Your task to perform on an android device: Do I have any events this weekend? Image 0: 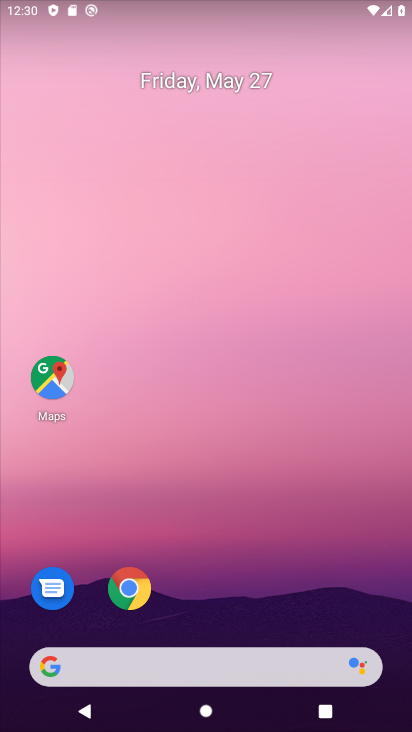
Step 0: press home button
Your task to perform on an android device: Do I have any events this weekend? Image 1: 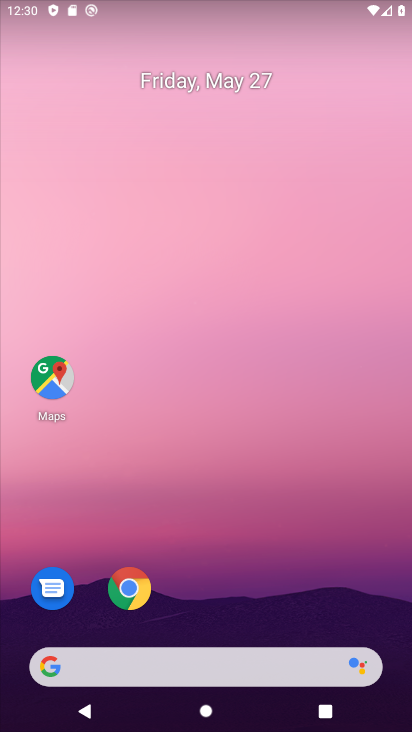
Step 1: drag from (245, 621) to (240, 92)
Your task to perform on an android device: Do I have any events this weekend? Image 2: 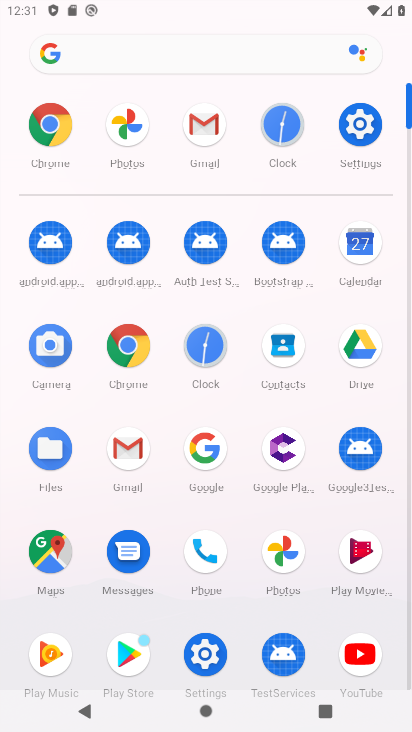
Step 2: click (358, 238)
Your task to perform on an android device: Do I have any events this weekend? Image 3: 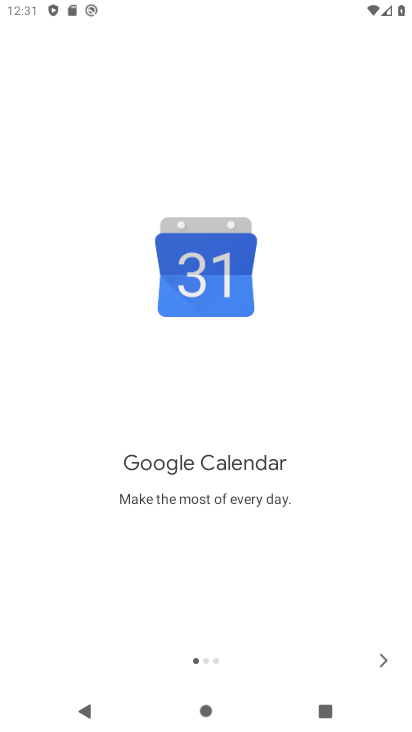
Step 3: click (379, 653)
Your task to perform on an android device: Do I have any events this weekend? Image 4: 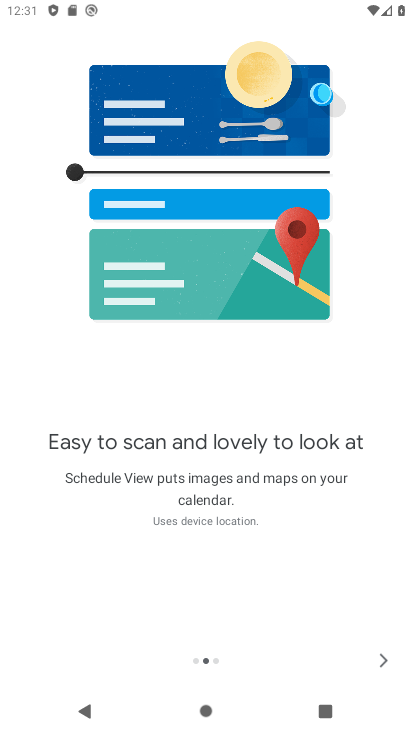
Step 4: click (379, 653)
Your task to perform on an android device: Do I have any events this weekend? Image 5: 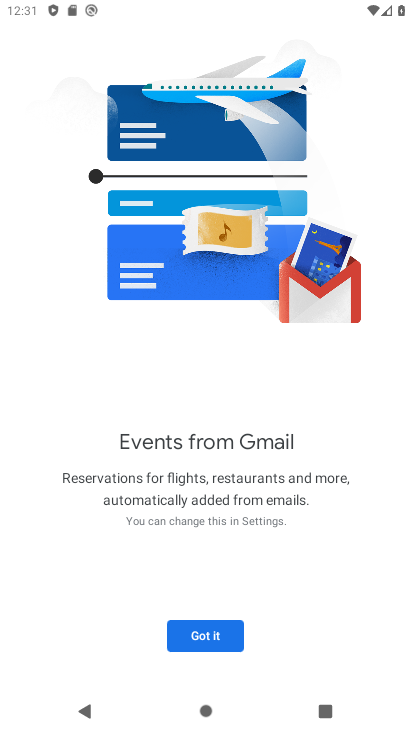
Step 5: click (207, 631)
Your task to perform on an android device: Do I have any events this weekend? Image 6: 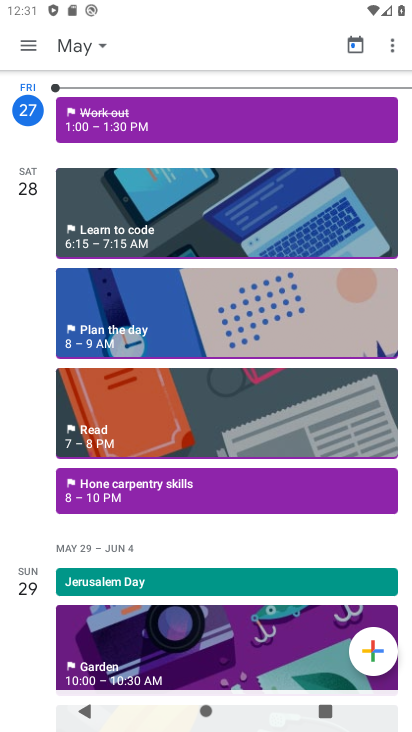
Step 6: click (32, 37)
Your task to perform on an android device: Do I have any events this weekend? Image 7: 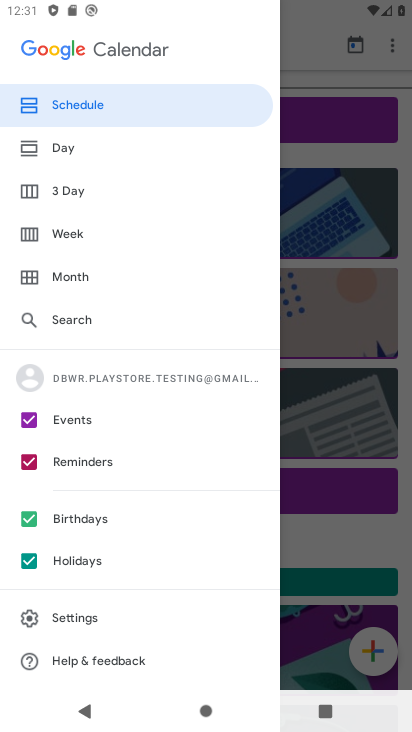
Step 7: click (30, 460)
Your task to perform on an android device: Do I have any events this weekend? Image 8: 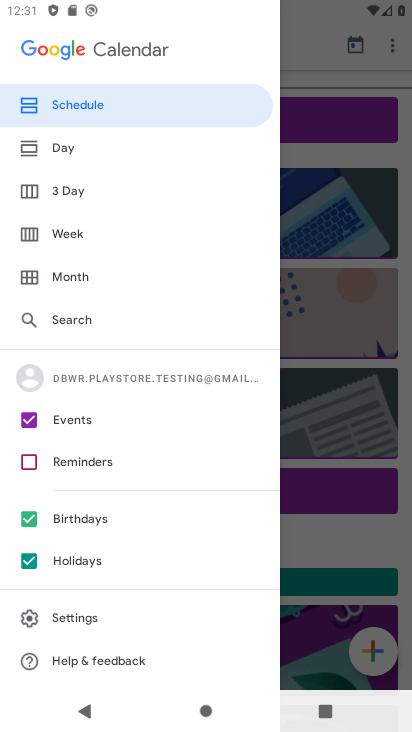
Step 8: click (29, 510)
Your task to perform on an android device: Do I have any events this weekend? Image 9: 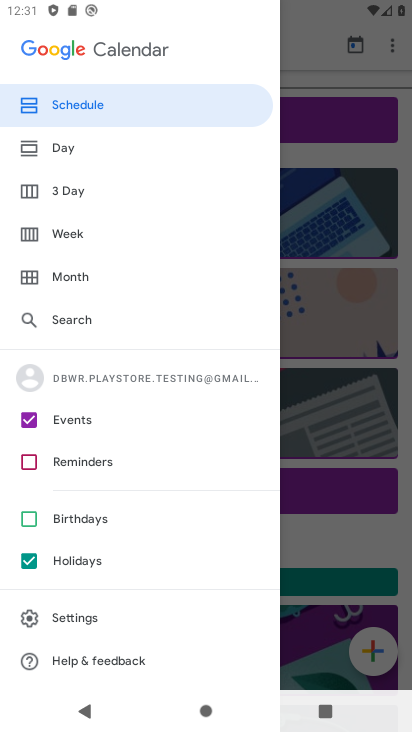
Step 9: click (32, 556)
Your task to perform on an android device: Do I have any events this weekend? Image 10: 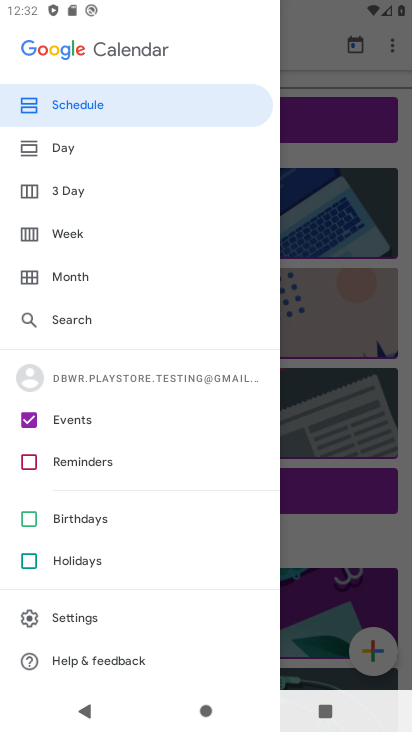
Step 10: click (47, 228)
Your task to perform on an android device: Do I have any events this weekend? Image 11: 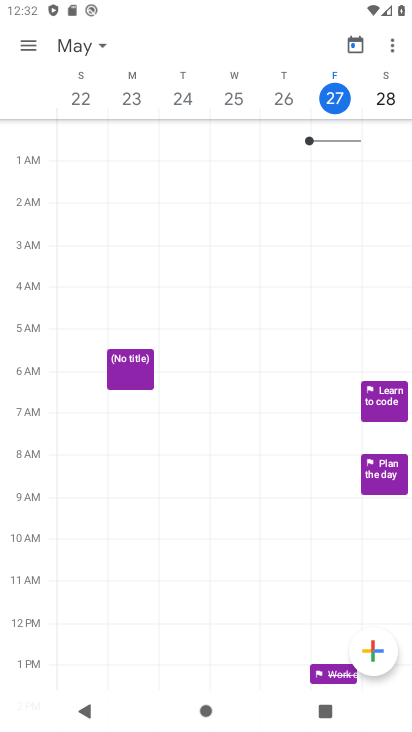
Step 11: drag from (350, 92) to (79, 96)
Your task to perform on an android device: Do I have any events this weekend? Image 12: 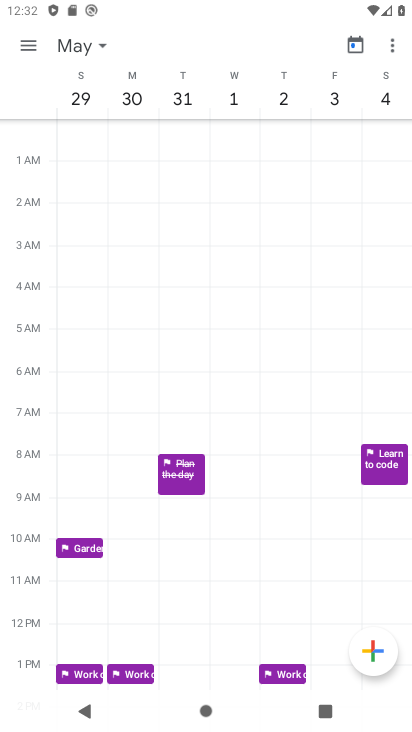
Step 12: drag from (81, 95) to (387, 112)
Your task to perform on an android device: Do I have any events this weekend? Image 13: 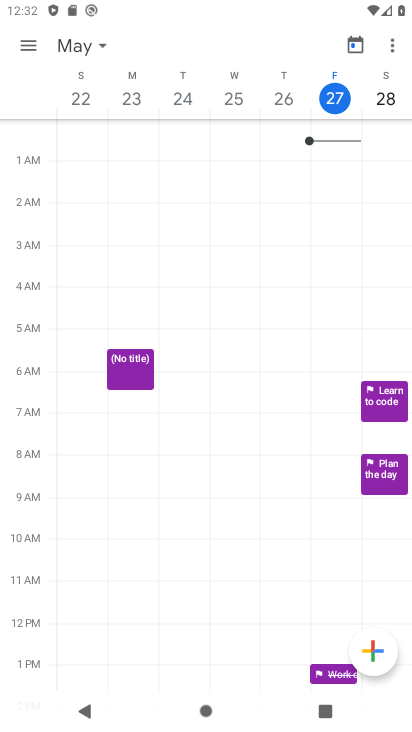
Step 13: click (334, 94)
Your task to perform on an android device: Do I have any events this weekend? Image 14: 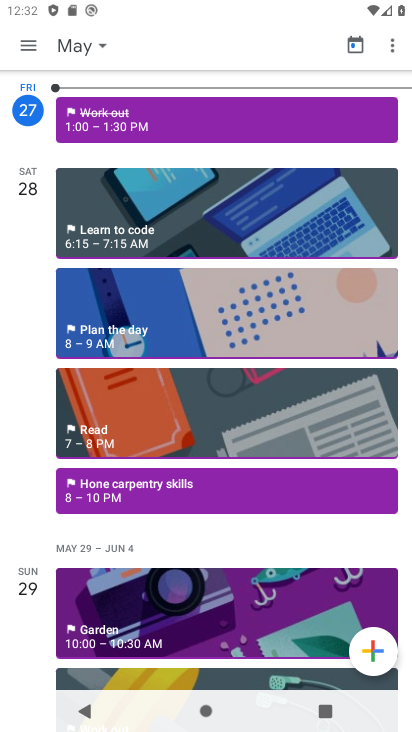
Step 14: task complete